Your task to perform on an android device: See recent photos Image 0: 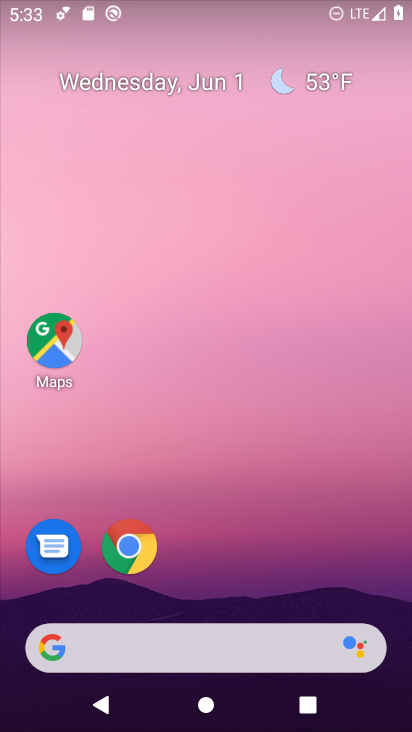
Step 0: drag from (245, 516) to (196, 8)
Your task to perform on an android device: See recent photos Image 1: 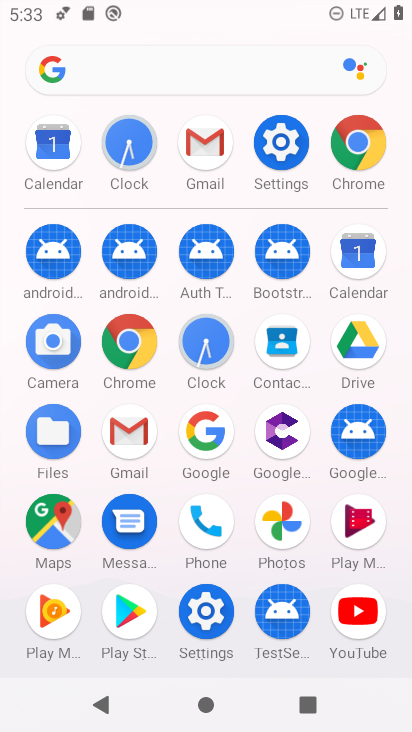
Step 1: click (281, 517)
Your task to perform on an android device: See recent photos Image 2: 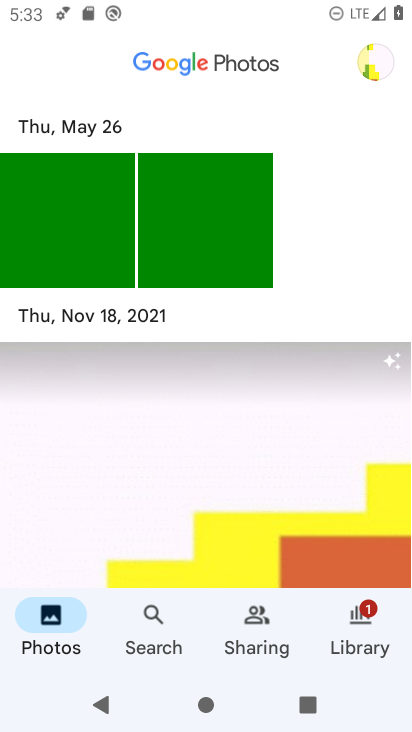
Step 2: task complete